Your task to perform on an android device: Toggle the flashlight Image 0: 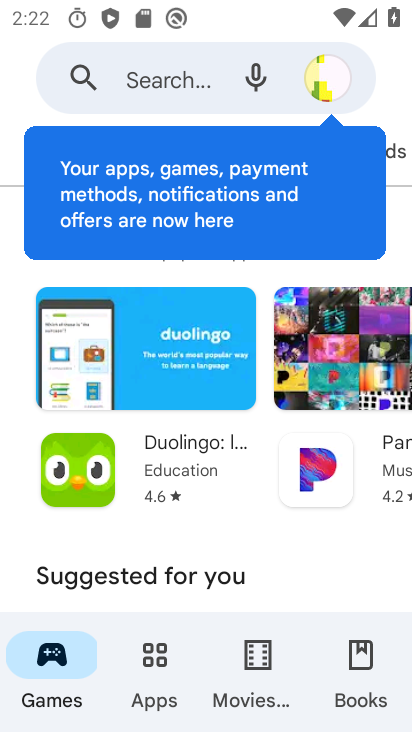
Step 0: press home button
Your task to perform on an android device: Toggle the flashlight Image 1: 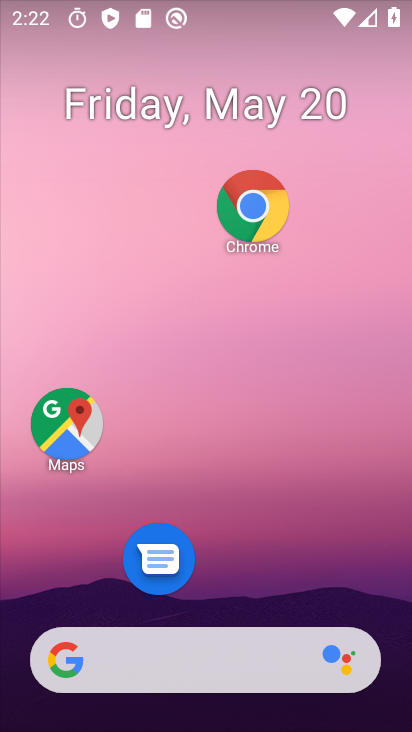
Step 1: drag from (212, 621) to (255, 7)
Your task to perform on an android device: Toggle the flashlight Image 2: 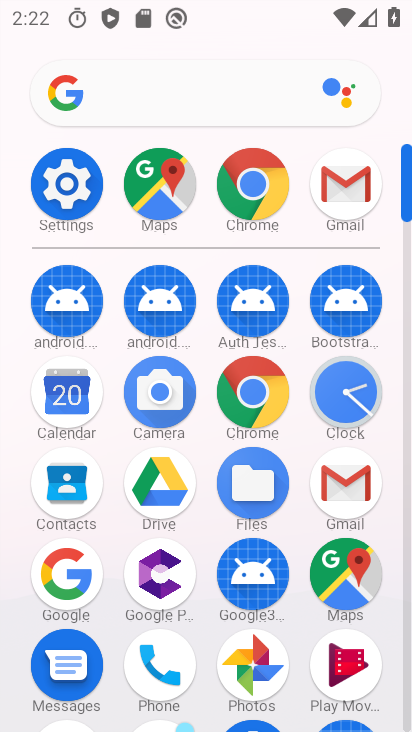
Step 2: click (57, 180)
Your task to perform on an android device: Toggle the flashlight Image 3: 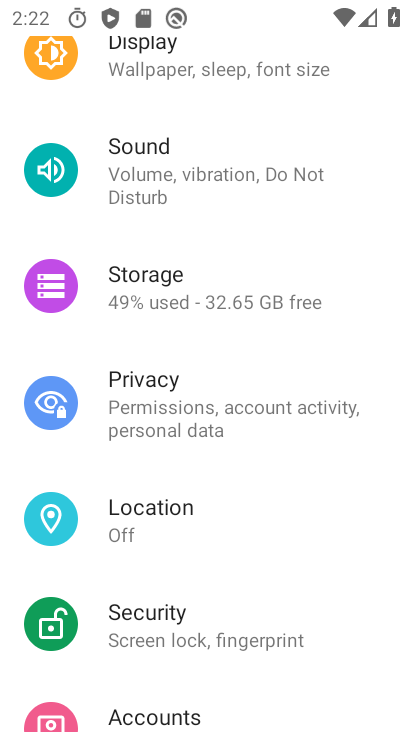
Step 3: task complete